Your task to perform on an android device: Open my contact list Image 0: 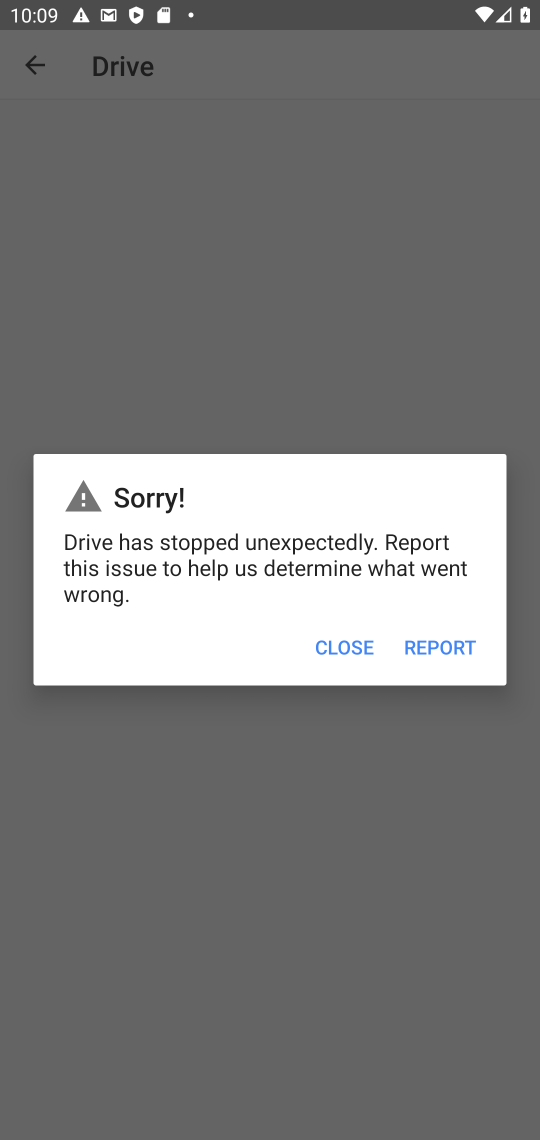
Step 0: press home button
Your task to perform on an android device: Open my contact list Image 1: 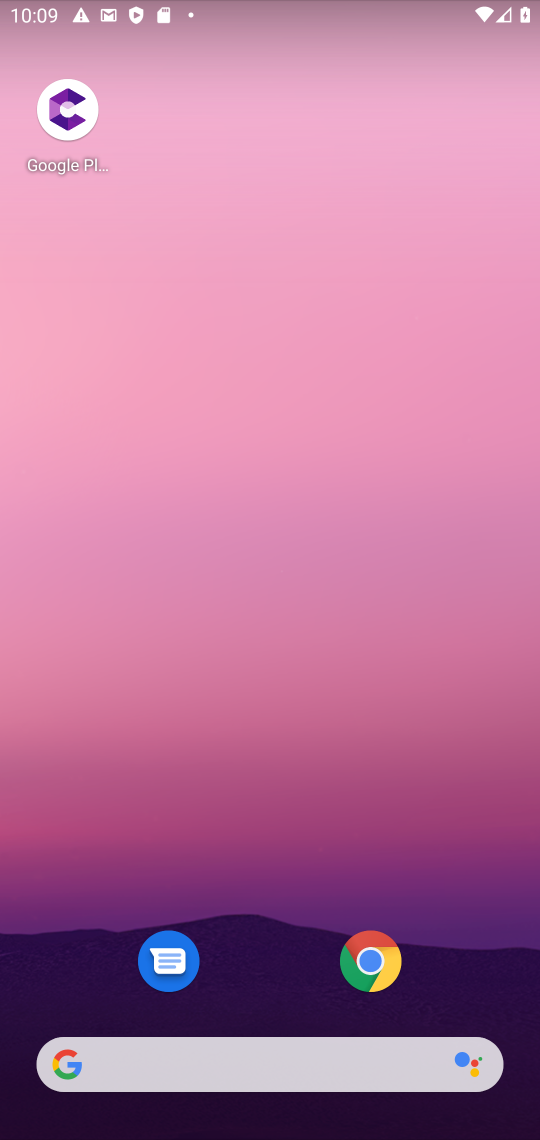
Step 1: drag from (311, 736) to (483, 35)
Your task to perform on an android device: Open my contact list Image 2: 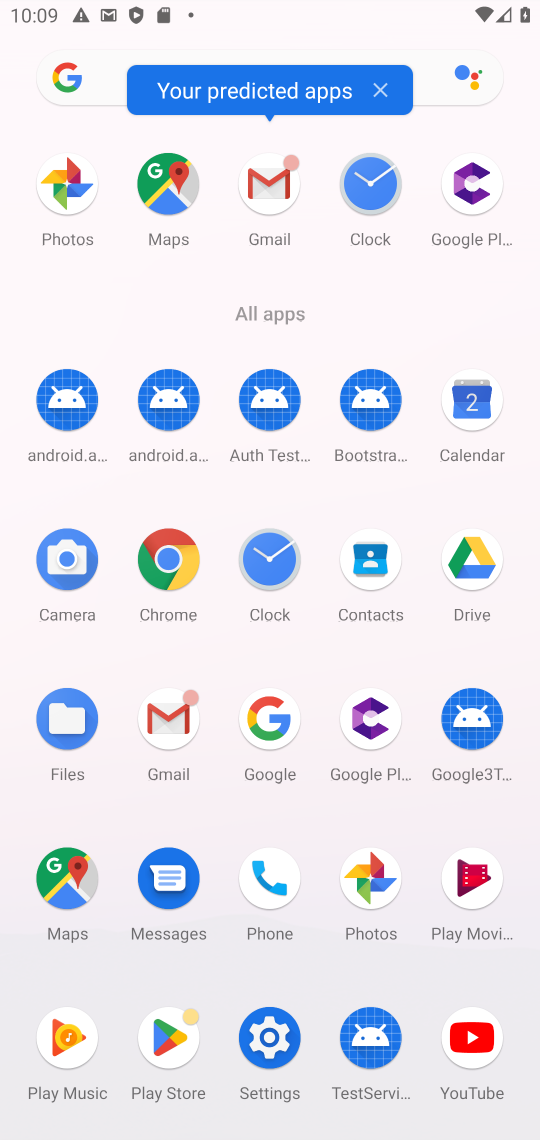
Step 2: click (367, 548)
Your task to perform on an android device: Open my contact list Image 3: 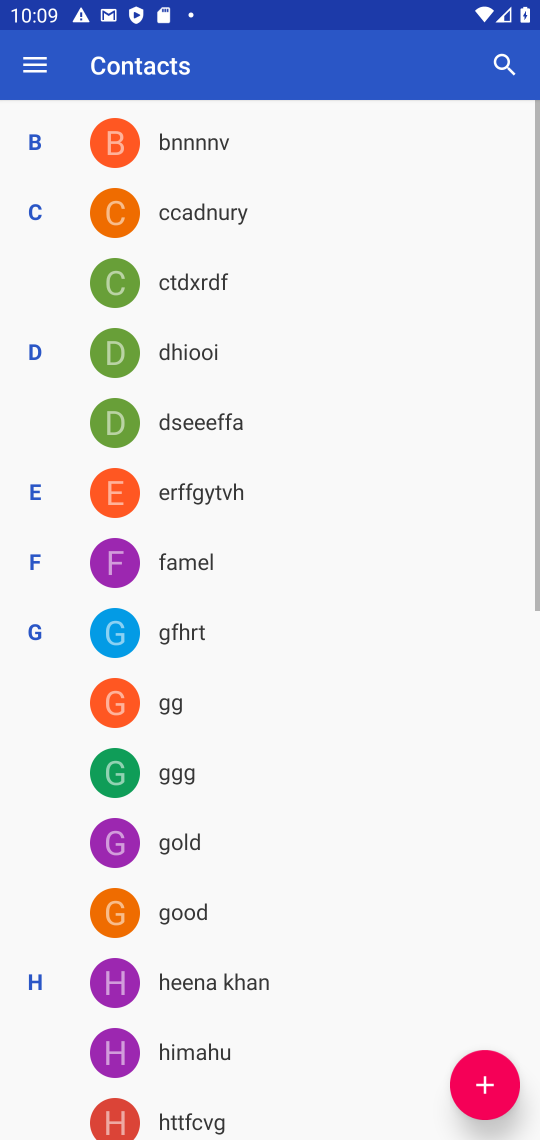
Step 3: task complete